Your task to perform on an android device: uninstall "DoorDash - Dasher" Image 0: 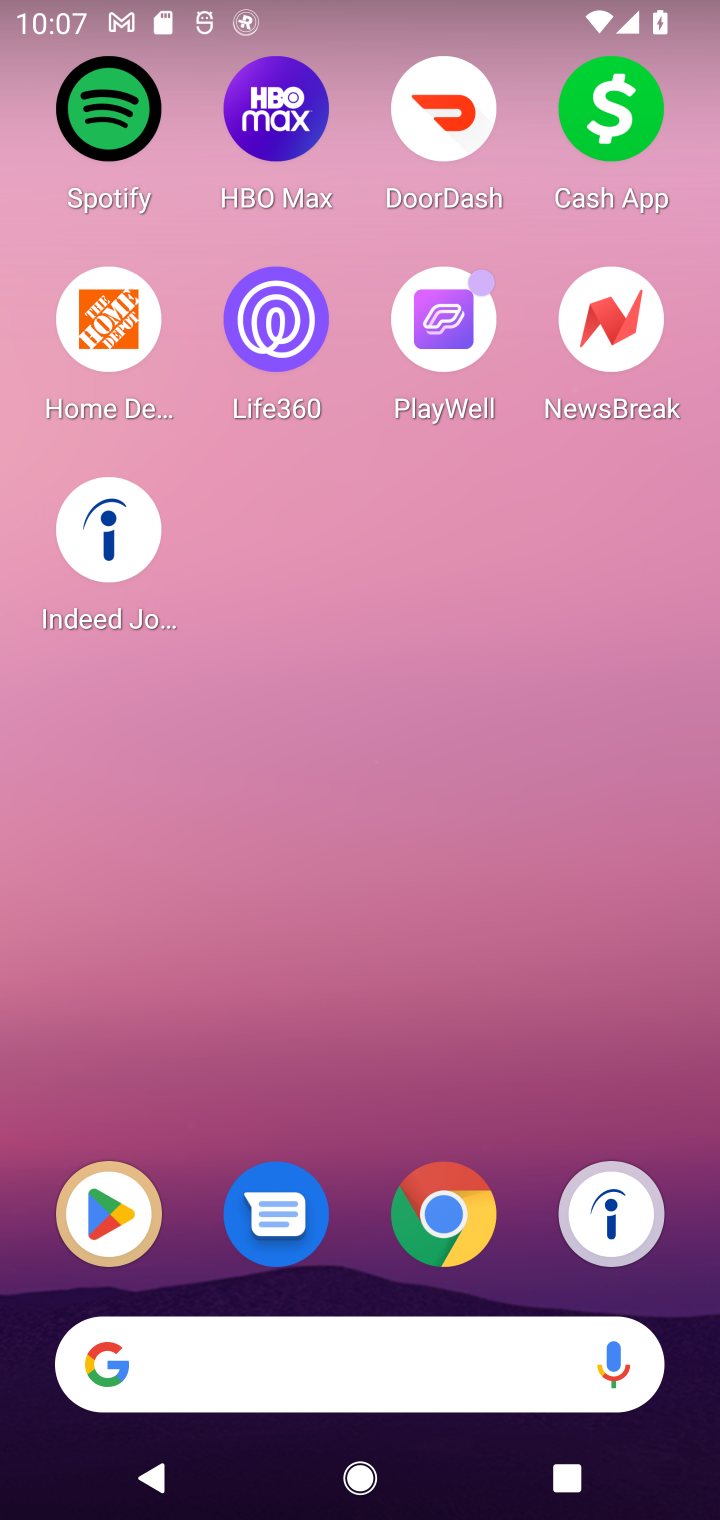
Step 0: press home button
Your task to perform on an android device: uninstall "DoorDash - Dasher" Image 1: 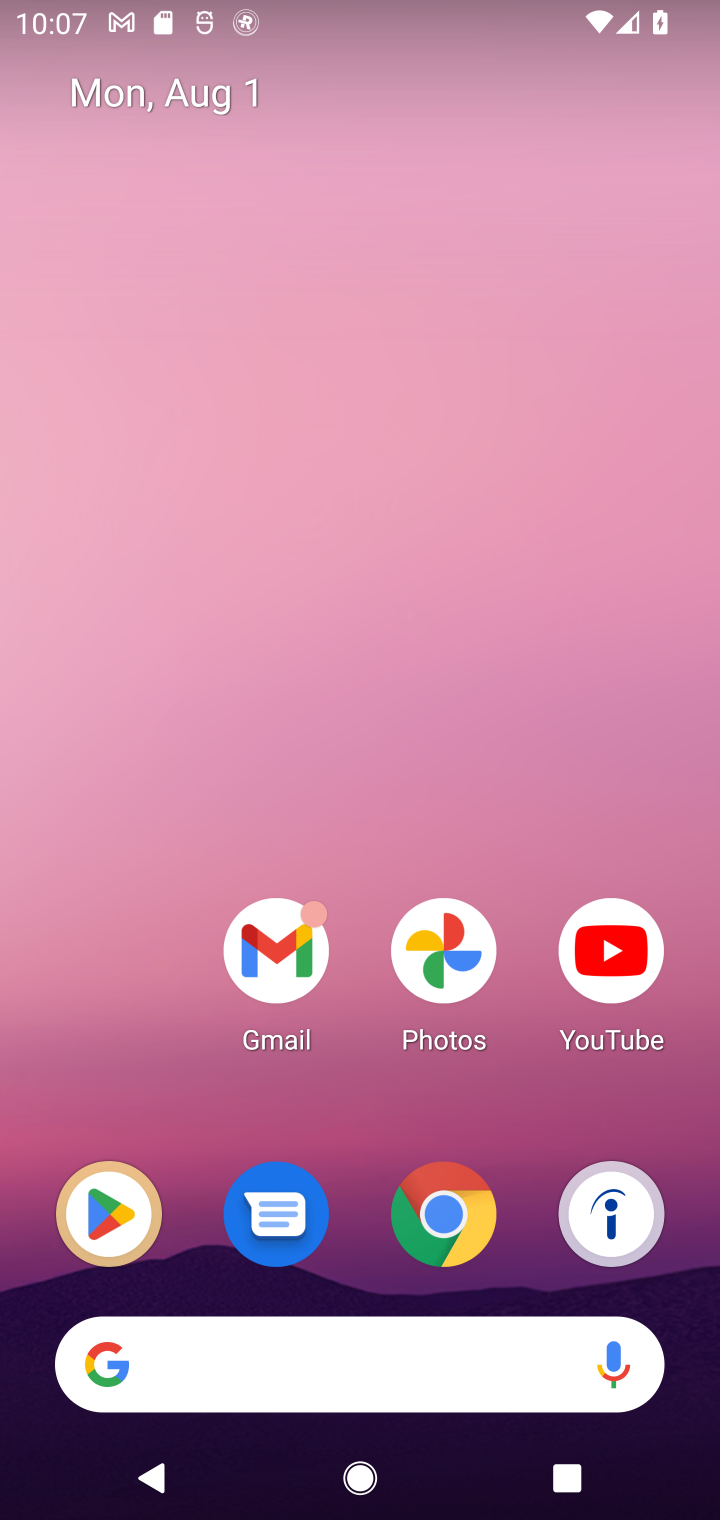
Step 1: click (112, 1214)
Your task to perform on an android device: uninstall "DoorDash - Dasher" Image 2: 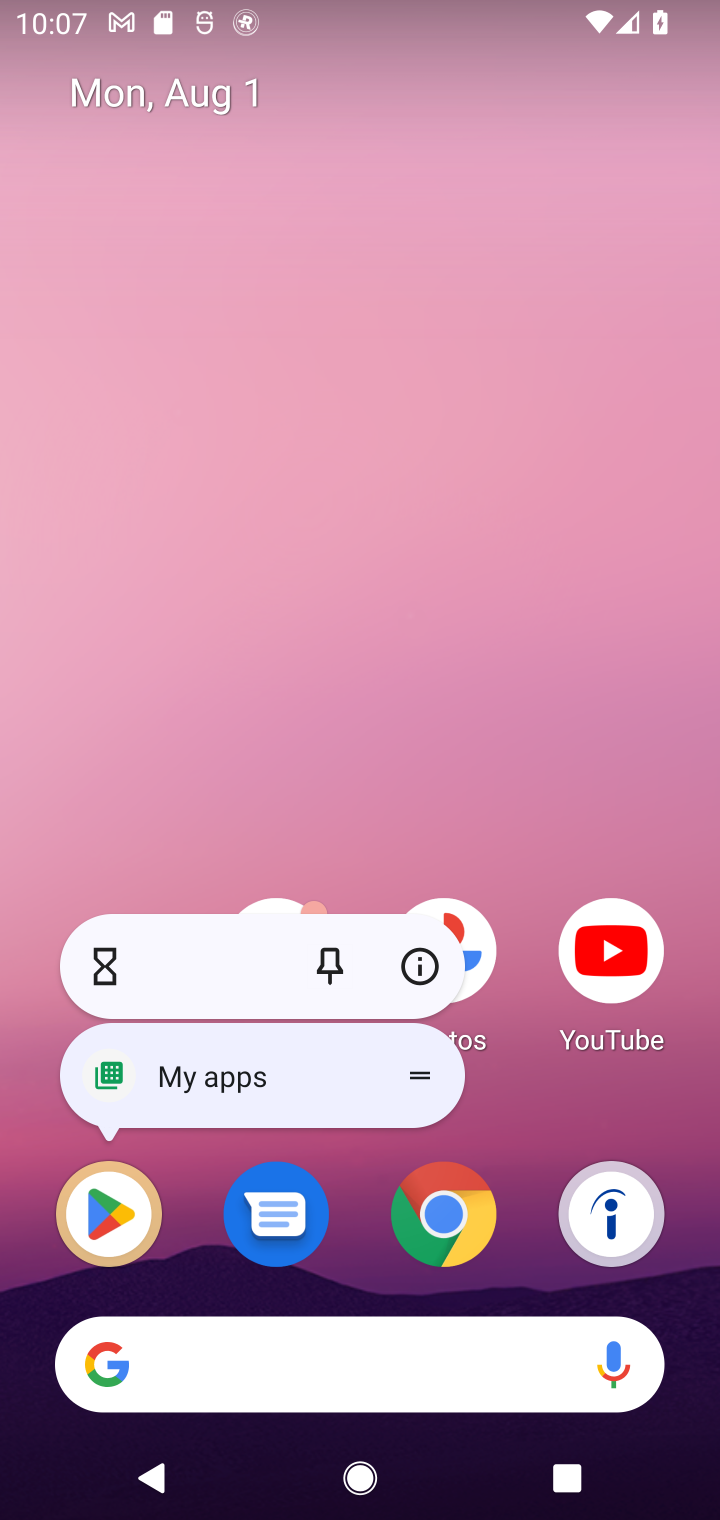
Step 2: click (106, 1212)
Your task to perform on an android device: uninstall "DoorDash - Dasher" Image 3: 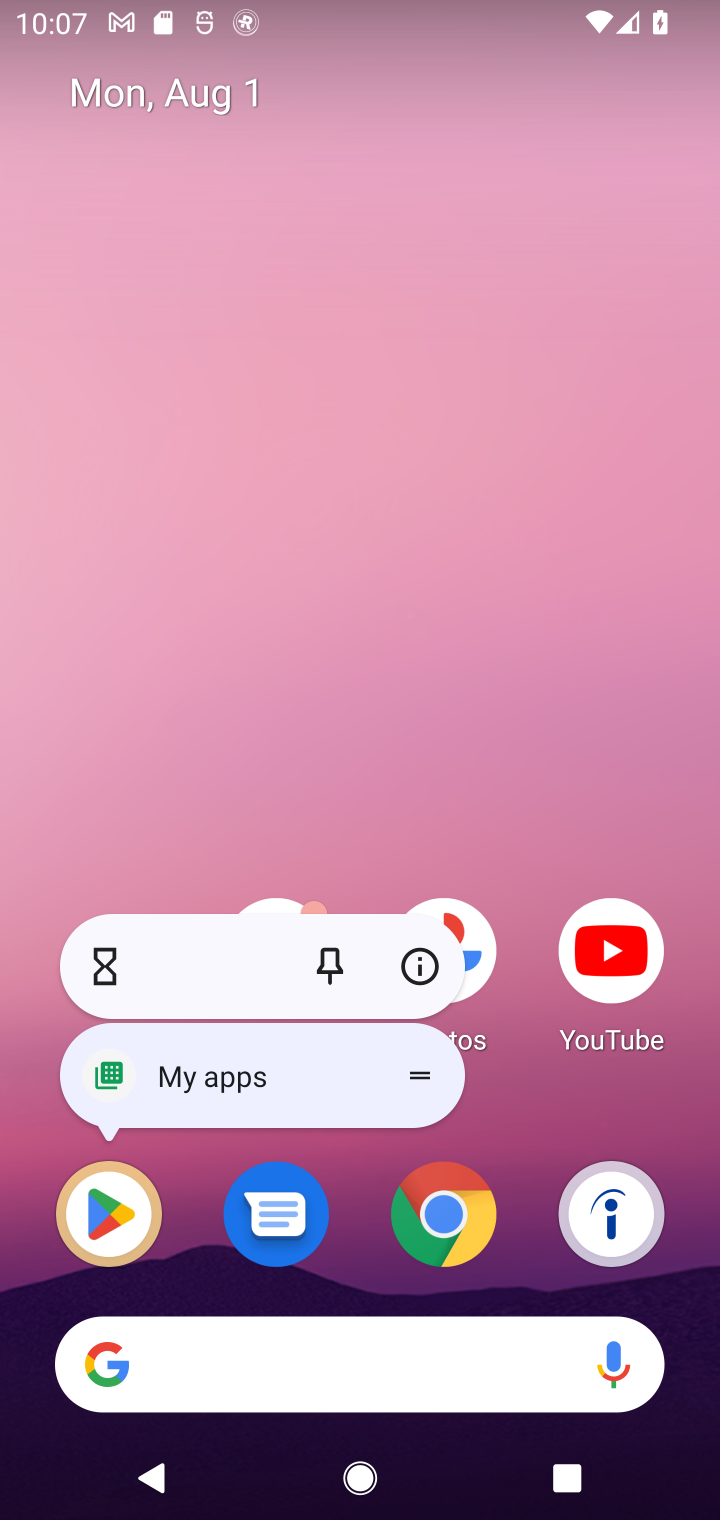
Step 3: click (106, 1212)
Your task to perform on an android device: uninstall "DoorDash - Dasher" Image 4: 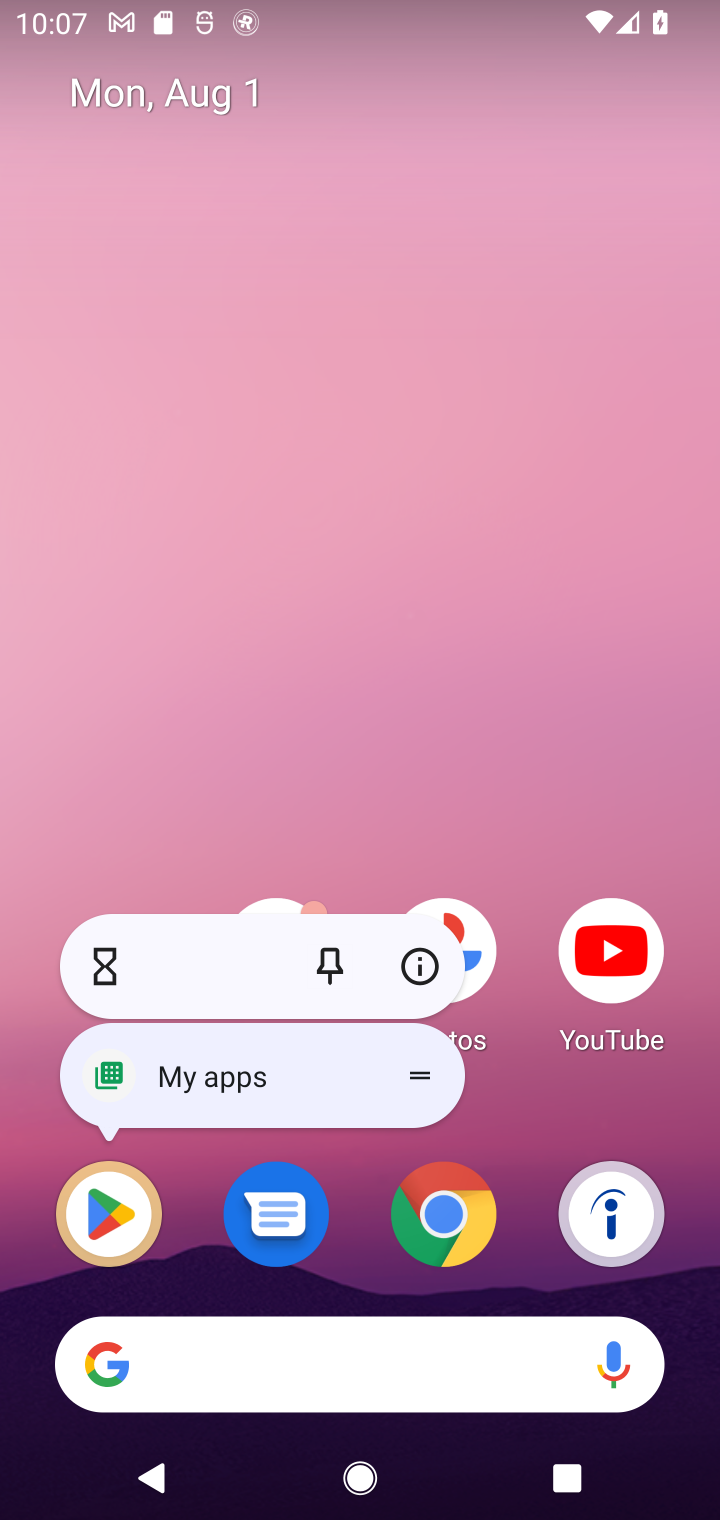
Step 4: click (106, 1214)
Your task to perform on an android device: uninstall "DoorDash - Dasher" Image 5: 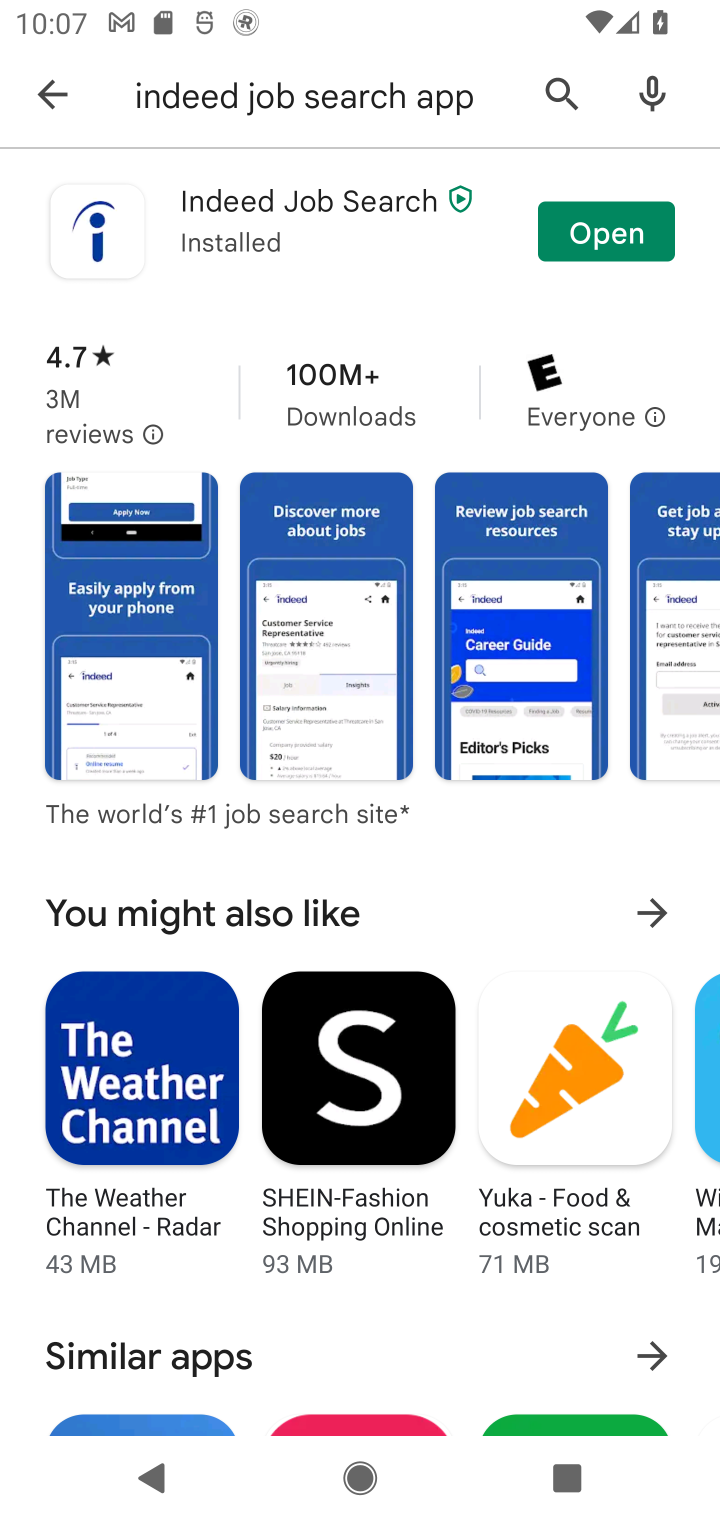
Step 5: click (546, 87)
Your task to perform on an android device: uninstall "DoorDash - Dasher" Image 6: 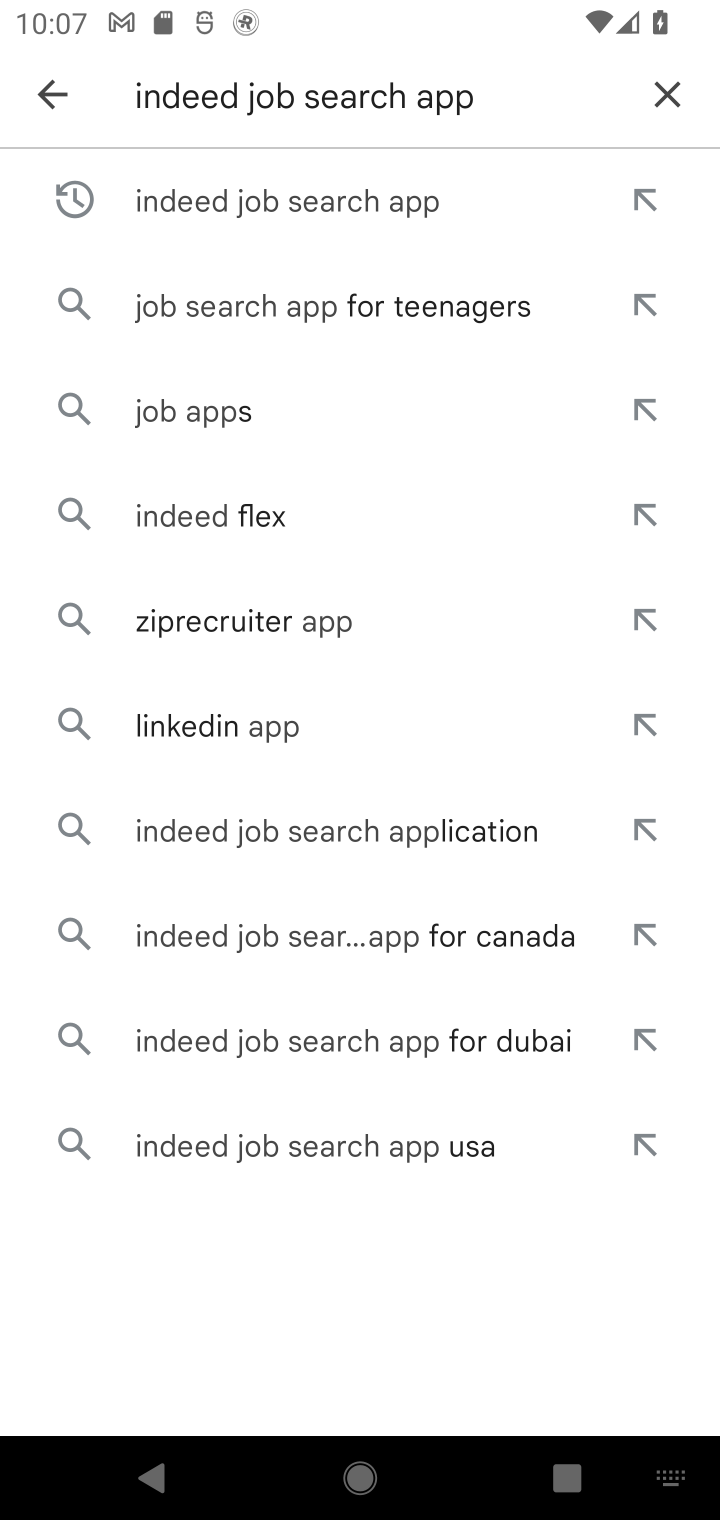
Step 6: click (671, 85)
Your task to perform on an android device: uninstall "DoorDash - Dasher" Image 7: 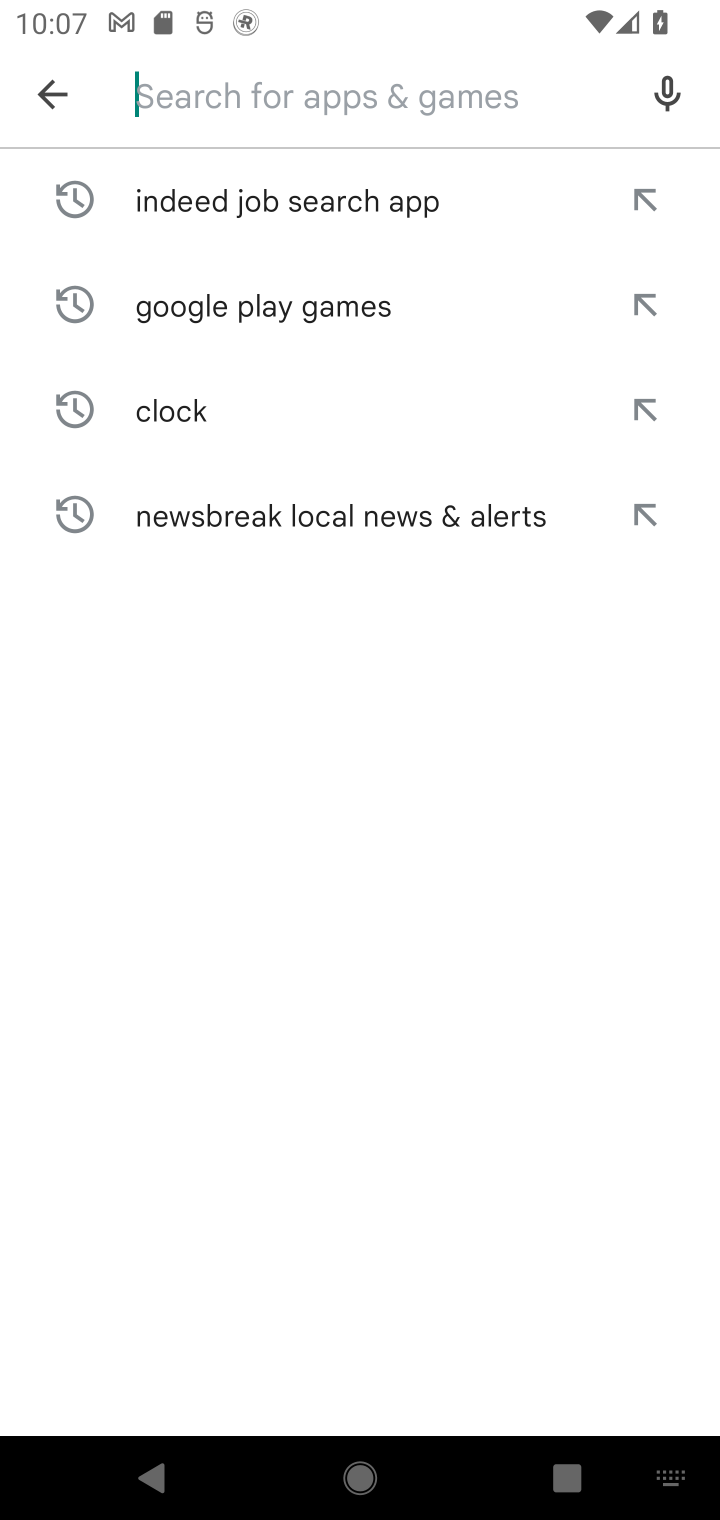
Step 7: type "DoorDash - Dasher"
Your task to perform on an android device: uninstall "DoorDash - Dasher" Image 8: 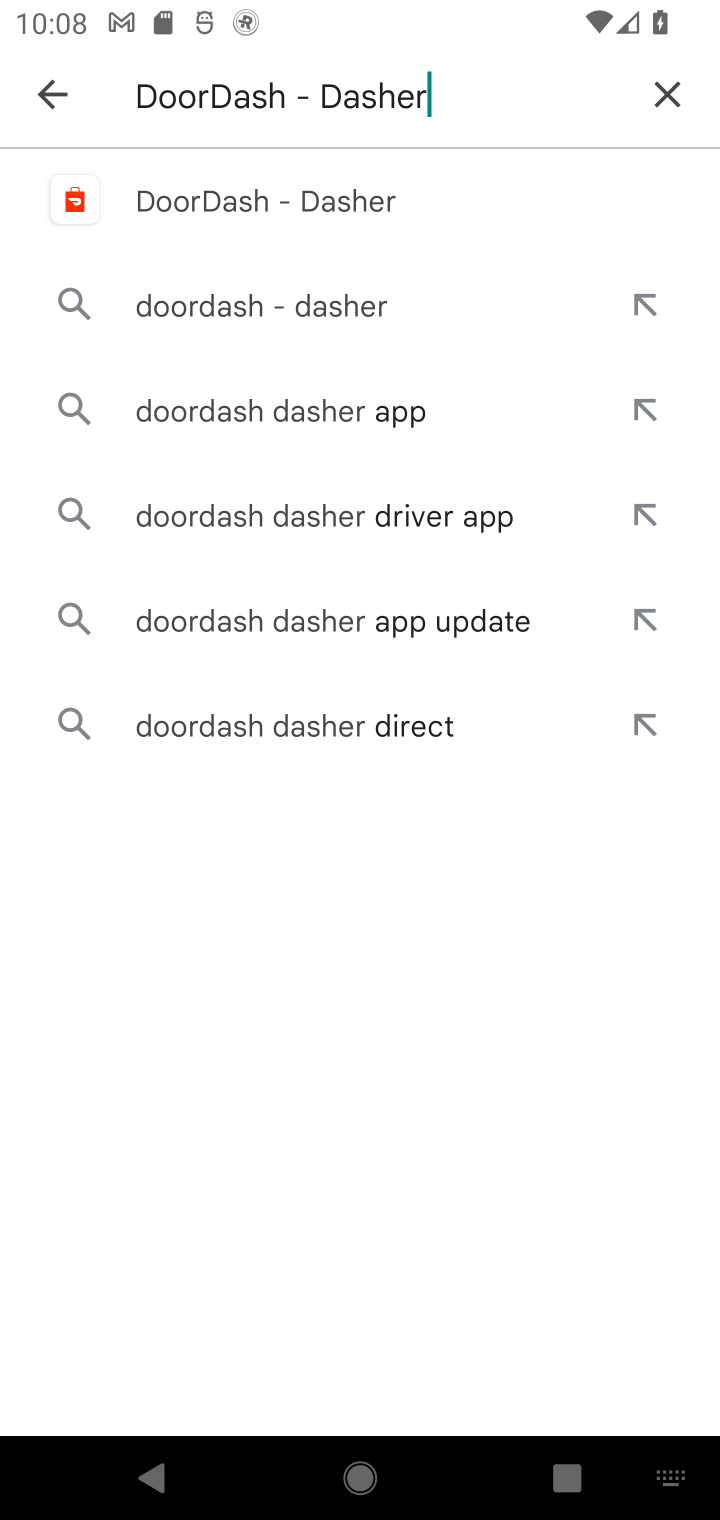
Step 8: click (299, 193)
Your task to perform on an android device: uninstall "DoorDash - Dasher" Image 9: 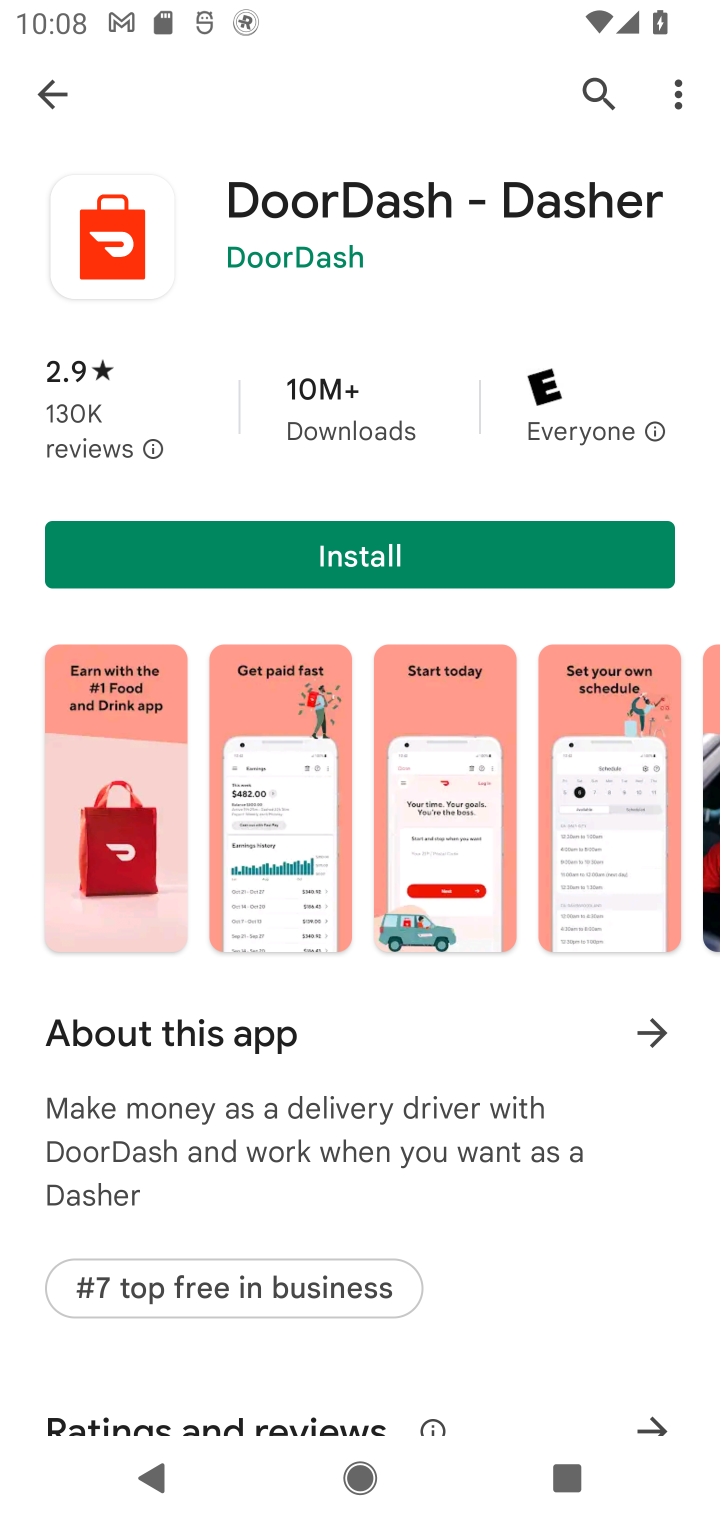
Step 9: task complete